Your task to perform on an android device: toggle javascript in the chrome app Image 0: 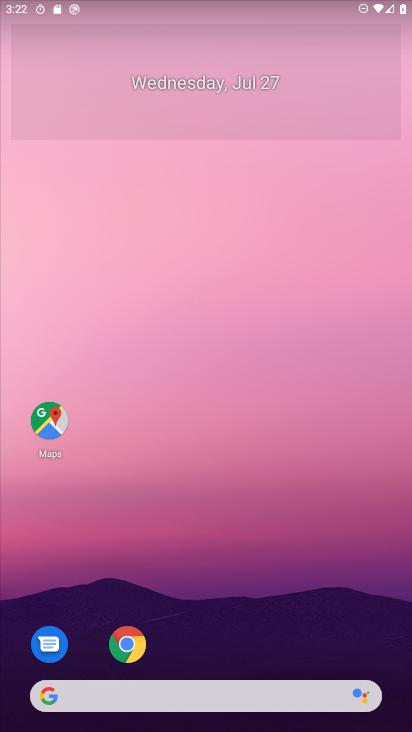
Step 0: drag from (217, 588) to (287, 23)
Your task to perform on an android device: toggle javascript in the chrome app Image 1: 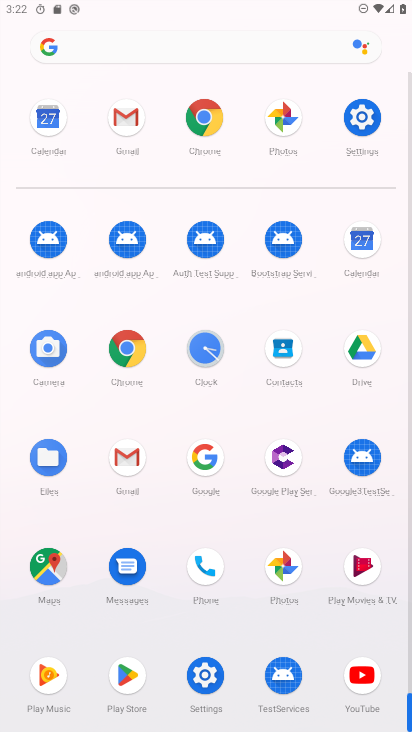
Step 1: click (136, 346)
Your task to perform on an android device: toggle javascript in the chrome app Image 2: 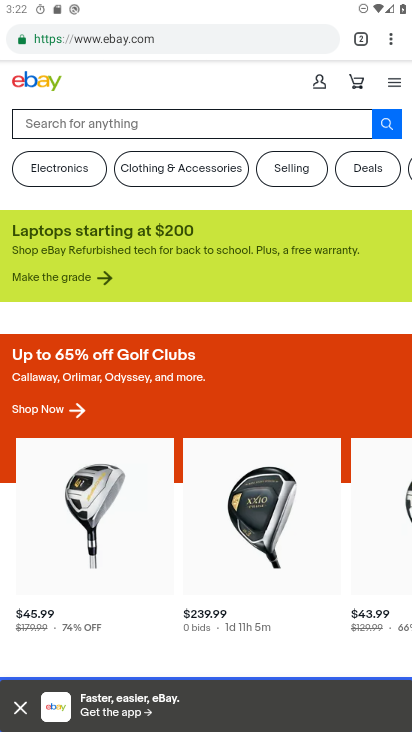
Step 2: click (391, 37)
Your task to perform on an android device: toggle javascript in the chrome app Image 3: 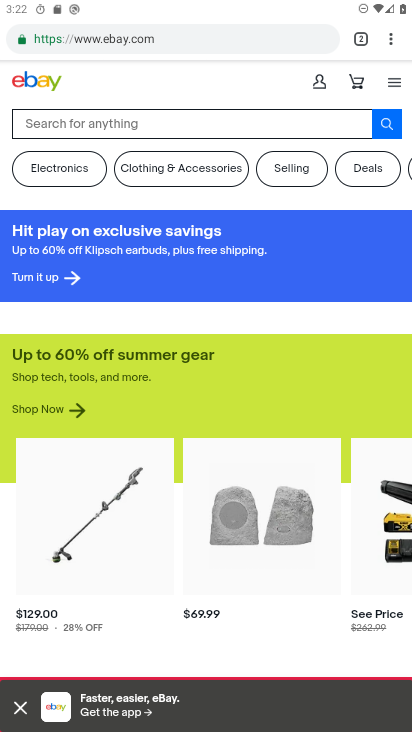
Step 3: click (391, 42)
Your task to perform on an android device: toggle javascript in the chrome app Image 4: 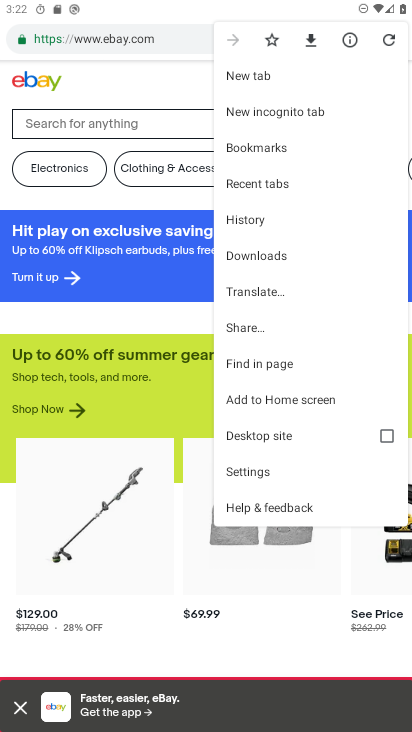
Step 4: click (258, 472)
Your task to perform on an android device: toggle javascript in the chrome app Image 5: 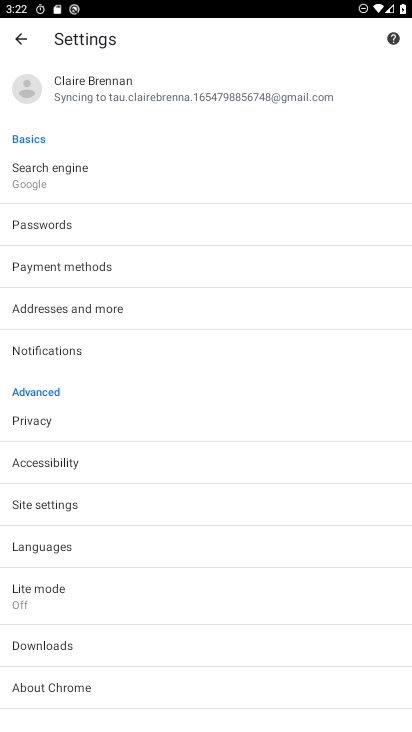
Step 5: click (46, 502)
Your task to perform on an android device: toggle javascript in the chrome app Image 6: 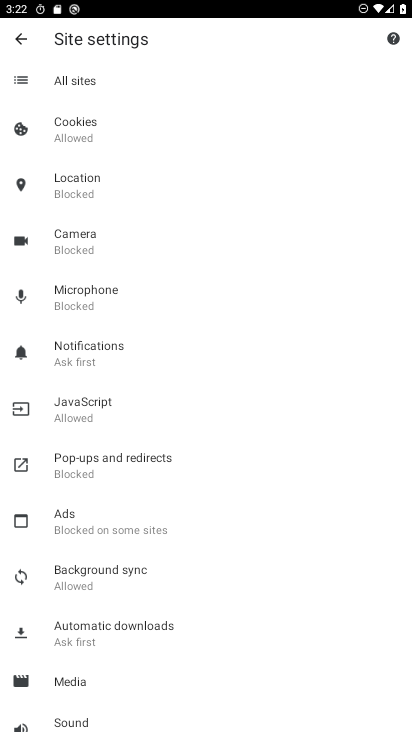
Step 6: click (100, 408)
Your task to perform on an android device: toggle javascript in the chrome app Image 7: 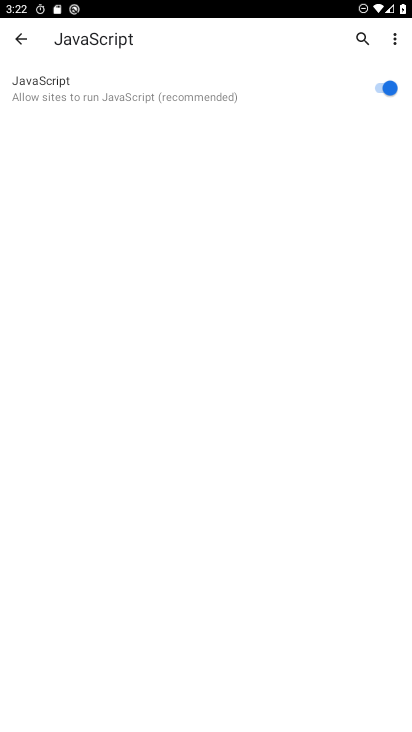
Step 7: click (368, 81)
Your task to perform on an android device: toggle javascript in the chrome app Image 8: 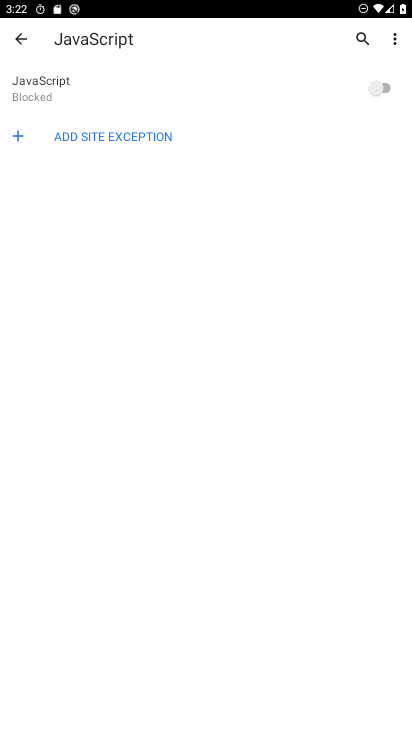
Step 8: task complete